Your task to perform on an android device: open app "Facebook Lite" (install if not already installed) and enter user name: "suppers@inbox.com" and password: "downplayed" Image 0: 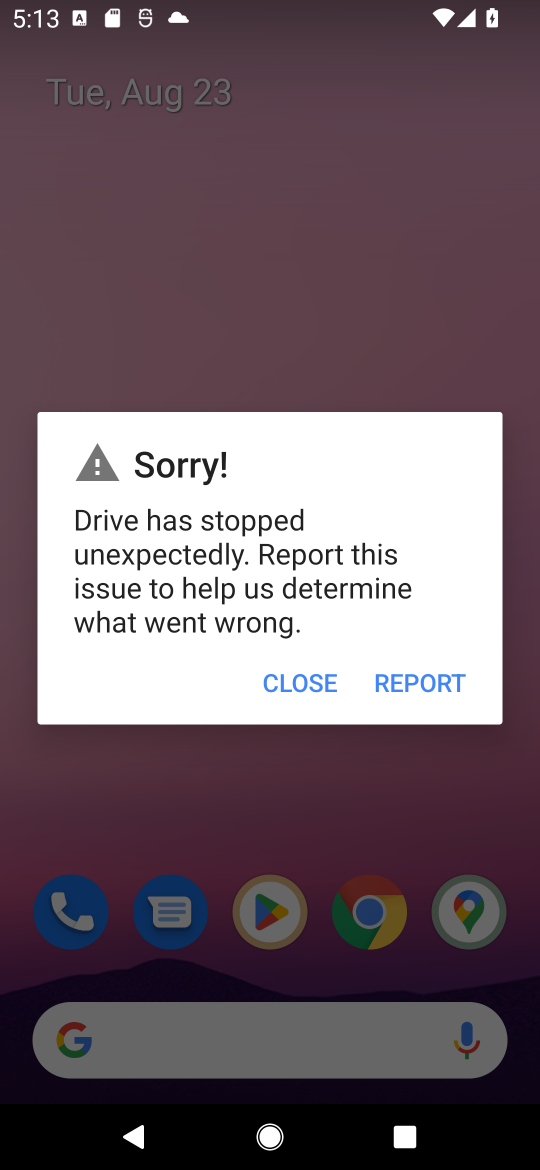
Step 0: press home button
Your task to perform on an android device: open app "Facebook Lite" (install if not already installed) and enter user name: "suppers@inbox.com" and password: "downplayed" Image 1: 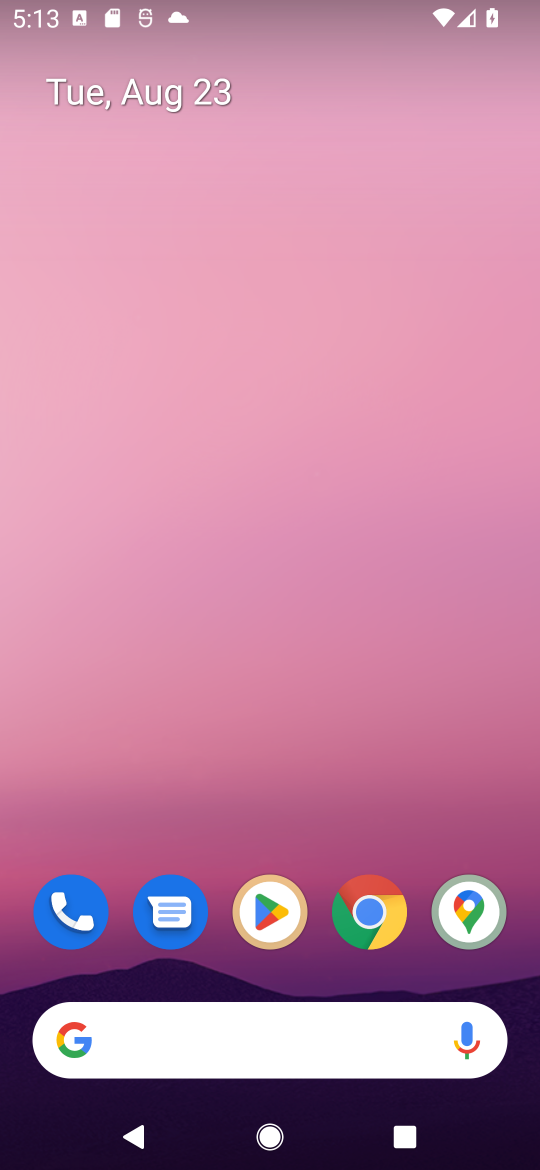
Step 1: drag from (191, 1066) to (312, 91)
Your task to perform on an android device: open app "Facebook Lite" (install if not already installed) and enter user name: "suppers@inbox.com" and password: "downplayed" Image 2: 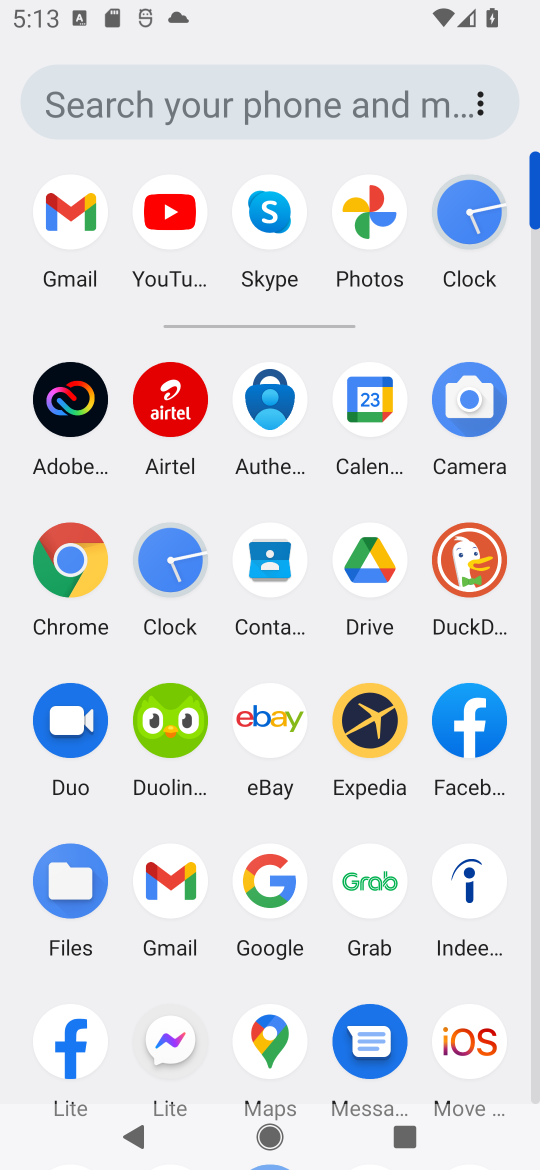
Step 2: drag from (301, 979) to (349, 531)
Your task to perform on an android device: open app "Facebook Lite" (install if not already installed) and enter user name: "suppers@inbox.com" and password: "downplayed" Image 3: 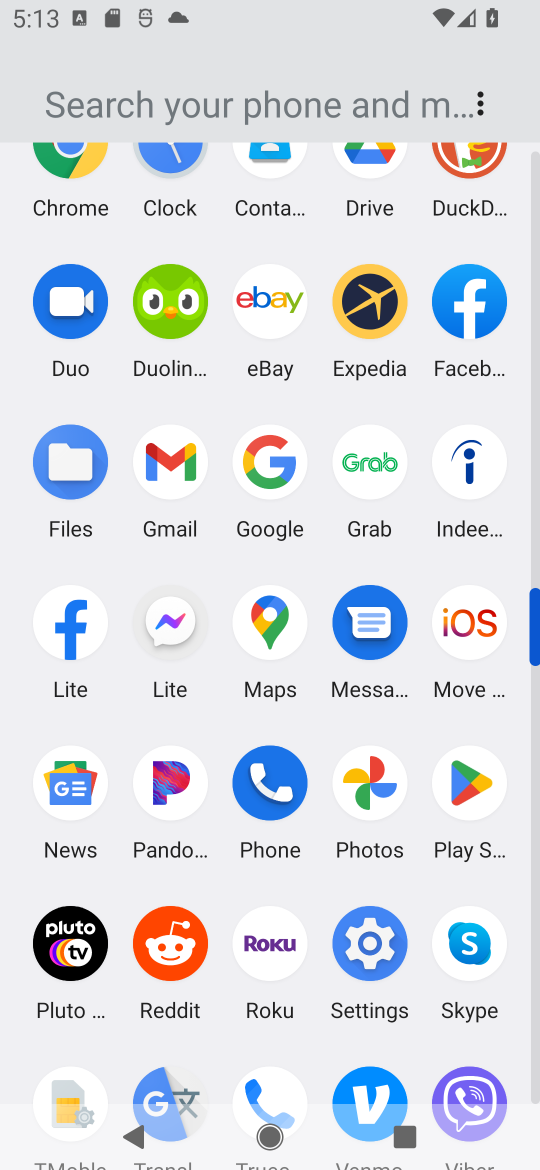
Step 3: click (476, 789)
Your task to perform on an android device: open app "Facebook Lite" (install if not already installed) and enter user name: "suppers@inbox.com" and password: "downplayed" Image 4: 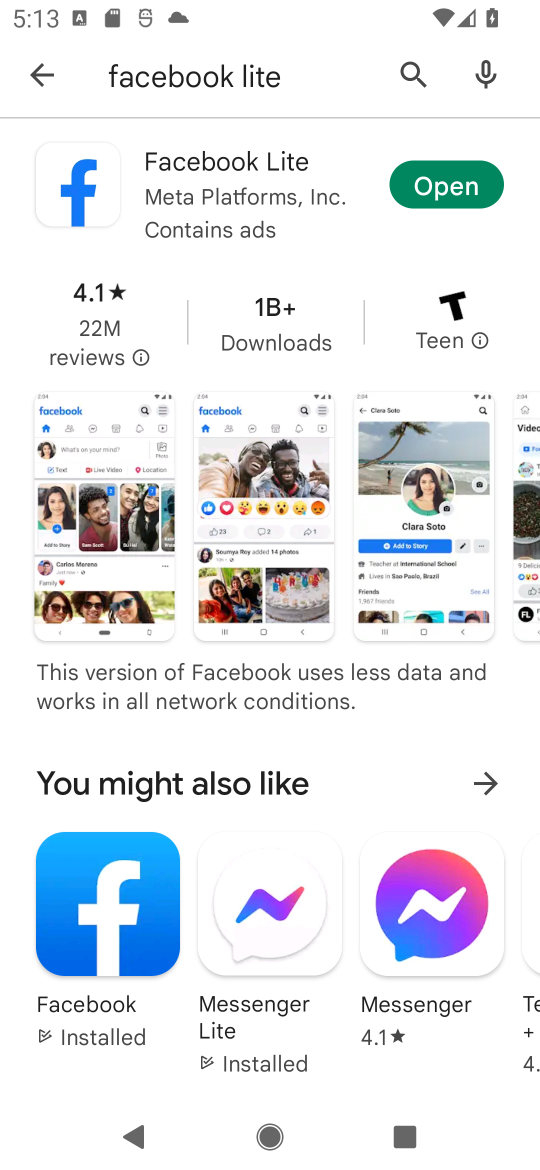
Step 4: press home button
Your task to perform on an android device: open app "Facebook Lite" (install if not already installed) and enter user name: "suppers@inbox.com" and password: "downplayed" Image 5: 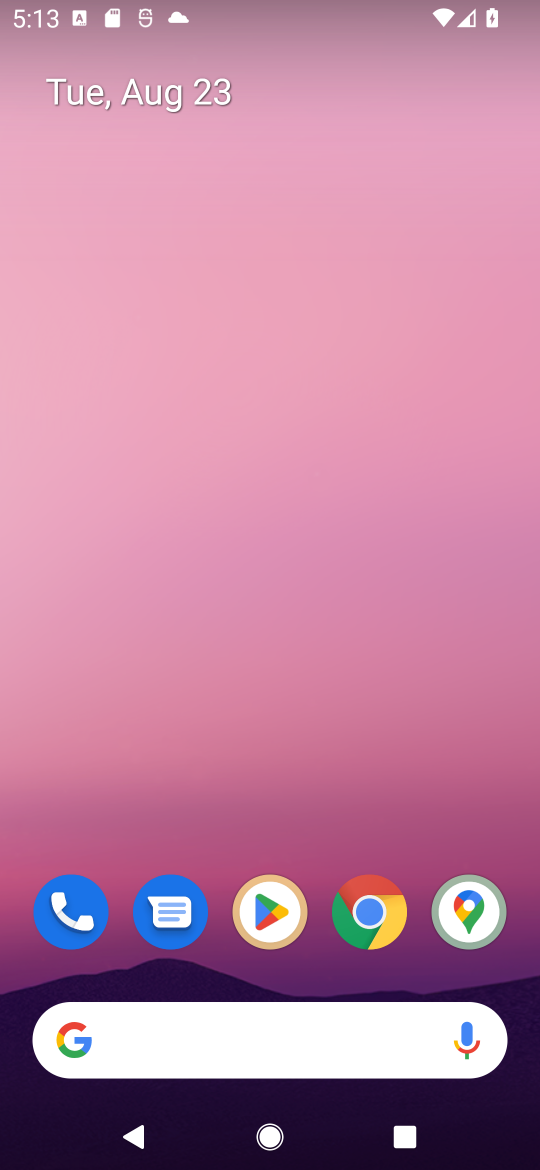
Step 5: drag from (204, 1040) to (257, 109)
Your task to perform on an android device: open app "Facebook Lite" (install if not already installed) and enter user name: "suppers@inbox.com" and password: "downplayed" Image 6: 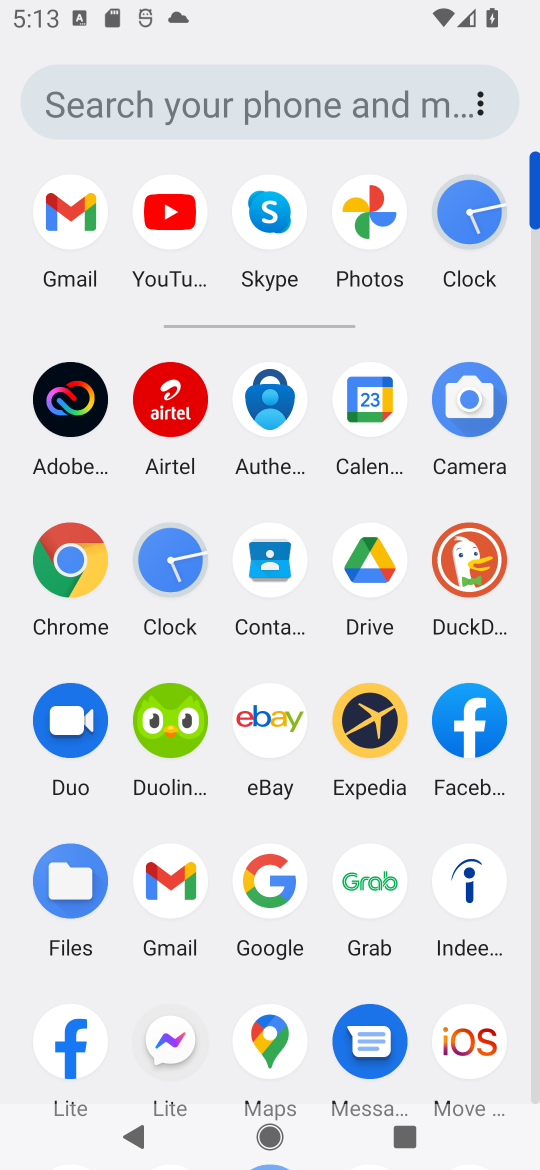
Step 6: drag from (219, 1002) to (191, 389)
Your task to perform on an android device: open app "Facebook Lite" (install if not already installed) and enter user name: "suppers@inbox.com" and password: "downplayed" Image 7: 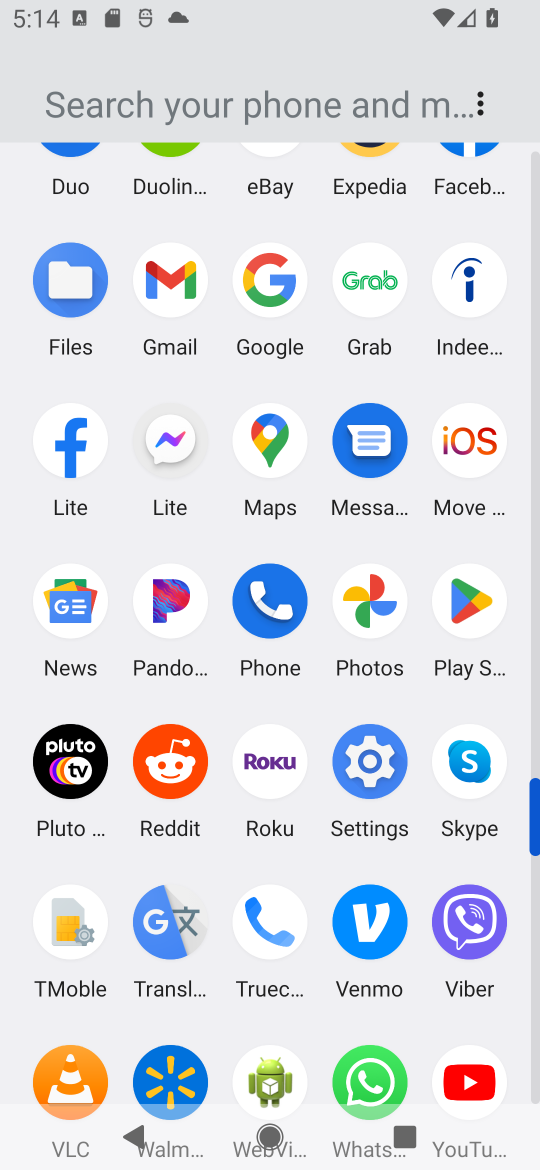
Step 7: click (474, 602)
Your task to perform on an android device: open app "Facebook Lite" (install if not already installed) and enter user name: "suppers@inbox.com" and password: "downplayed" Image 8: 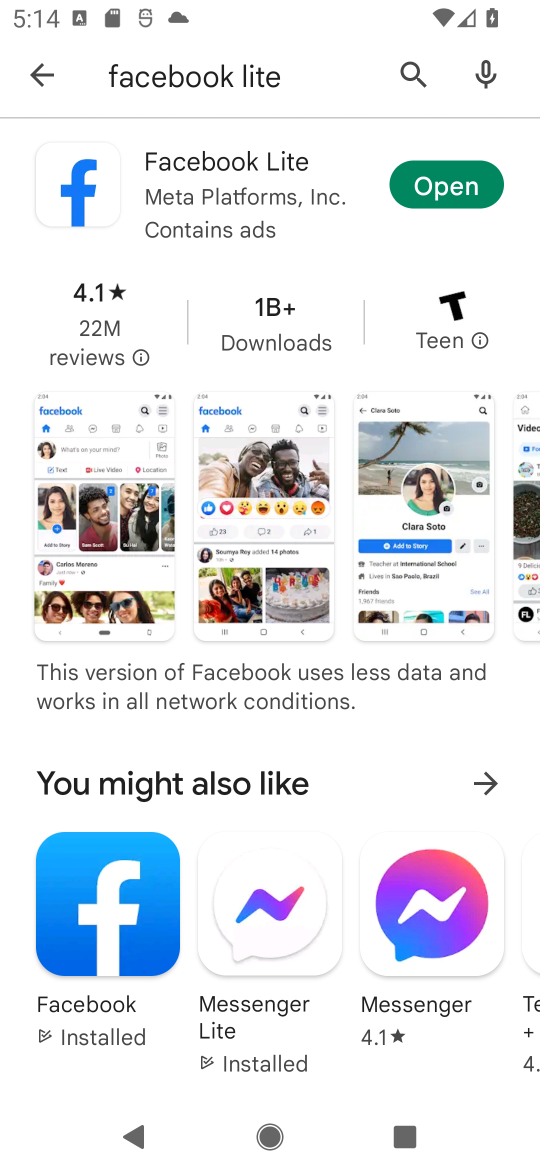
Step 8: click (438, 197)
Your task to perform on an android device: open app "Facebook Lite" (install if not already installed) and enter user name: "suppers@inbox.com" and password: "downplayed" Image 9: 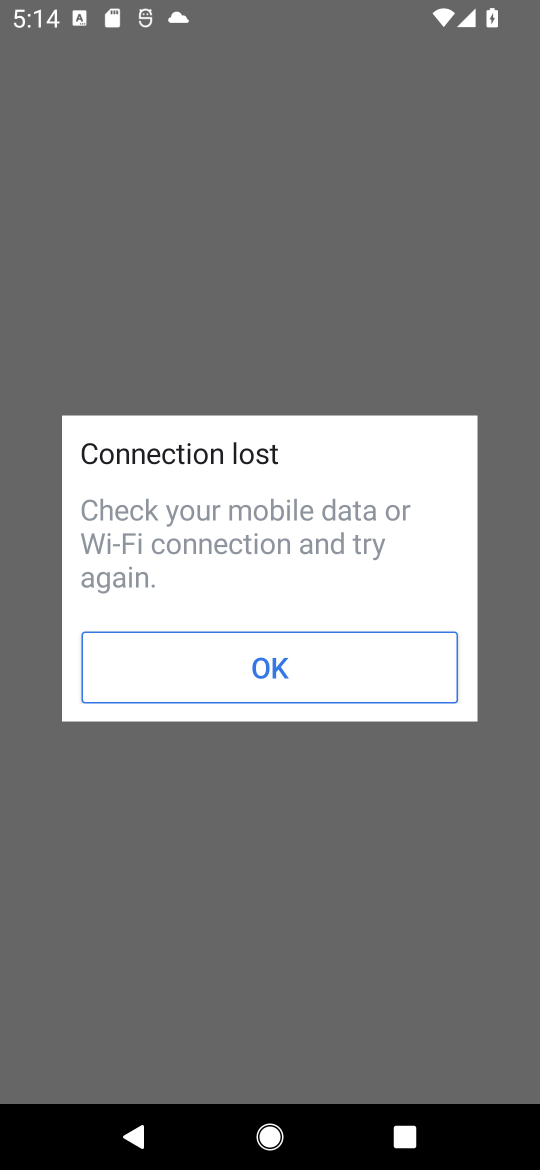
Step 9: click (266, 672)
Your task to perform on an android device: open app "Facebook Lite" (install if not already installed) and enter user name: "suppers@inbox.com" and password: "downplayed" Image 10: 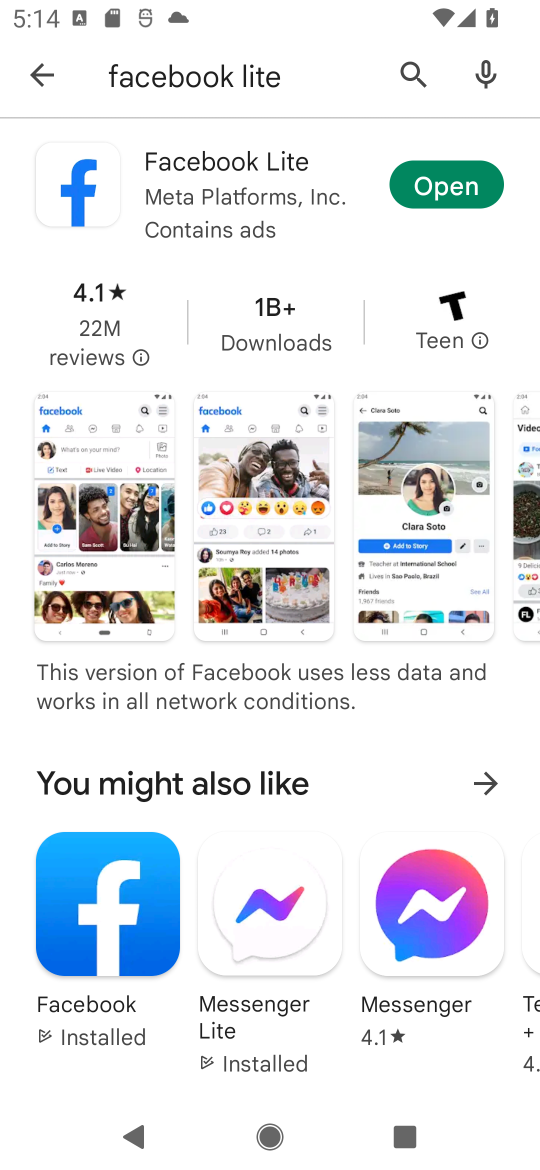
Step 10: task complete